Your task to perform on an android device: make emails show in primary in the gmail app Image 0: 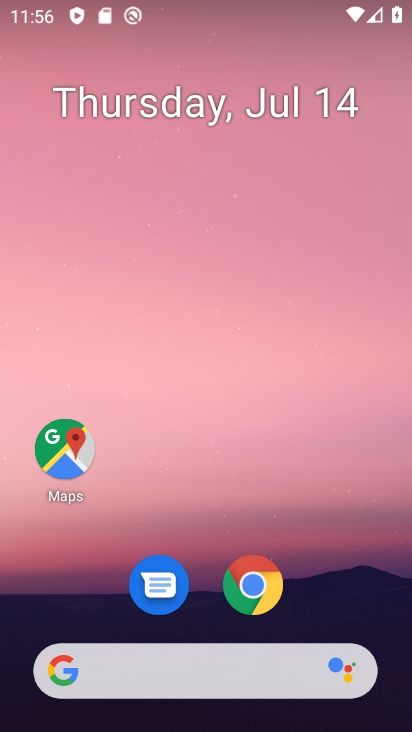
Step 0: drag from (345, 477) to (289, 16)
Your task to perform on an android device: make emails show in primary in the gmail app Image 1: 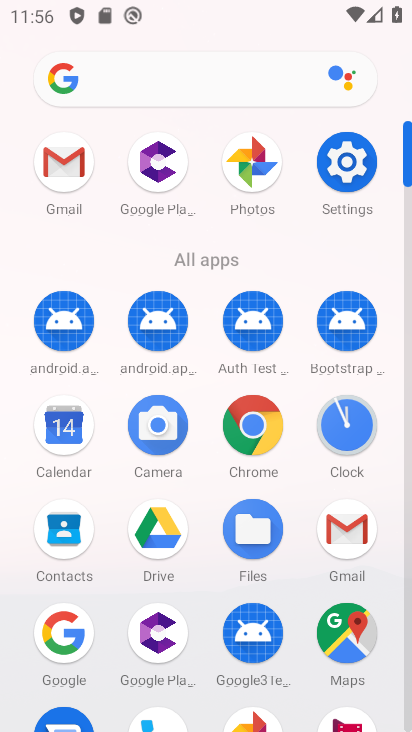
Step 1: click (83, 165)
Your task to perform on an android device: make emails show in primary in the gmail app Image 2: 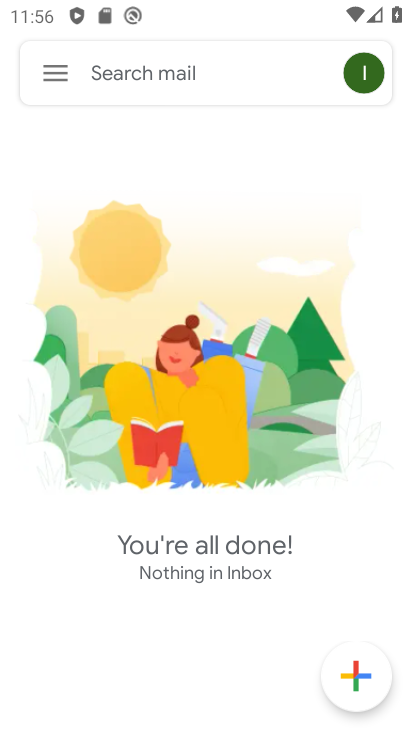
Step 2: click (61, 74)
Your task to perform on an android device: make emails show in primary in the gmail app Image 3: 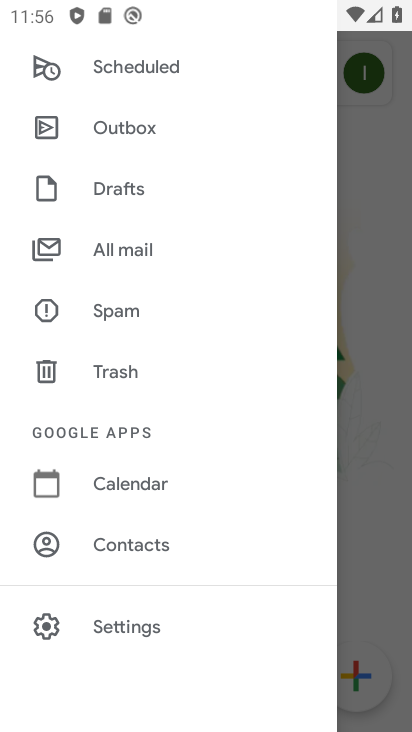
Step 3: click (125, 623)
Your task to perform on an android device: make emails show in primary in the gmail app Image 4: 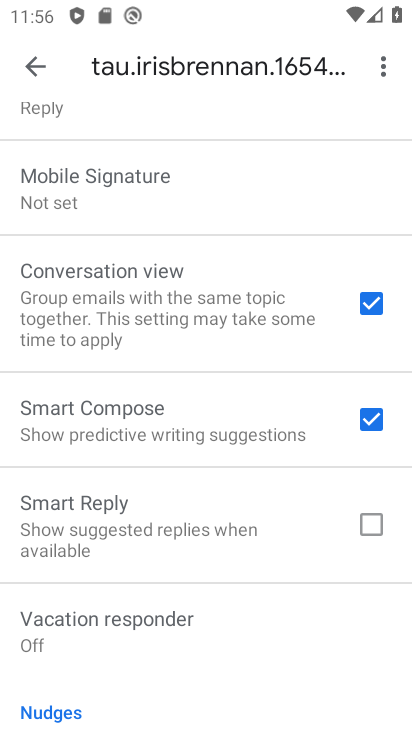
Step 4: drag from (151, 192) to (185, 647)
Your task to perform on an android device: make emails show in primary in the gmail app Image 5: 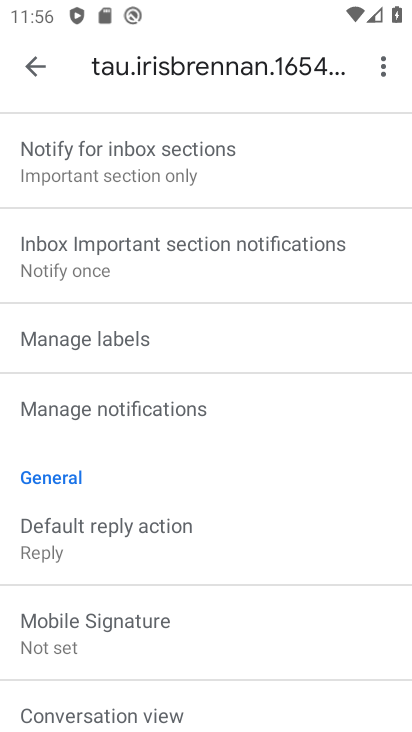
Step 5: drag from (157, 277) to (154, 618)
Your task to perform on an android device: make emails show in primary in the gmail app Image 6: 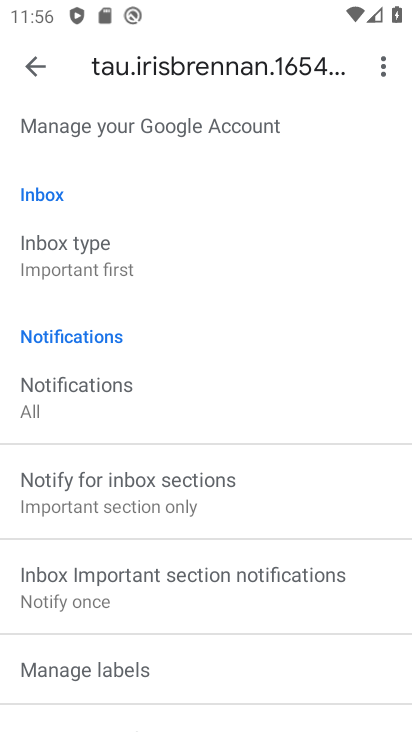
Step 6: click (95, 253)
Your task to perform on an android device: make emails show in primary in the gmail app Image 7: 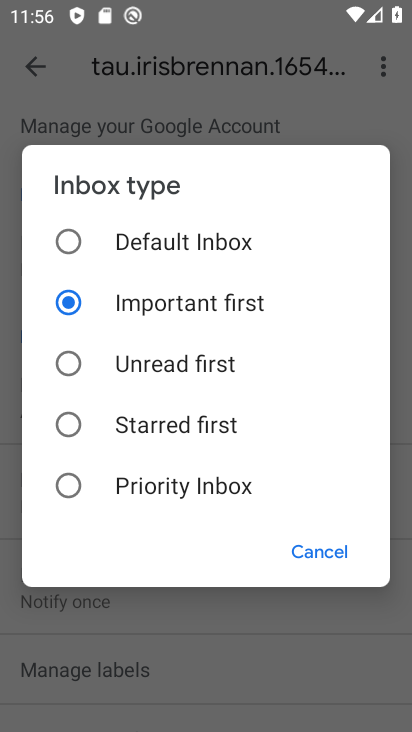
Step 7: click (74, 230)
Your task to perform on an android device: make emails show in primary in the gmail app Image 8: 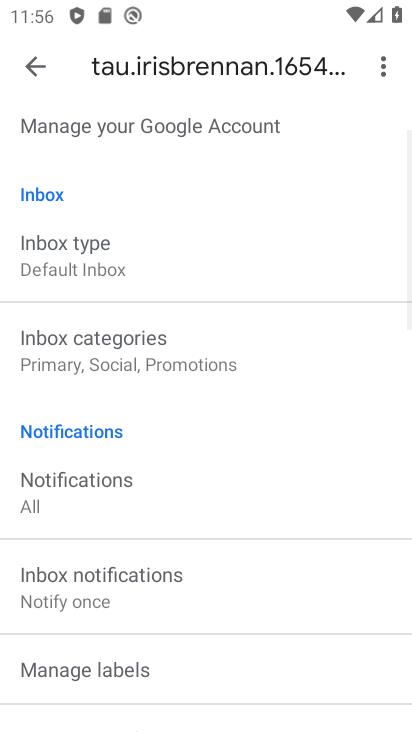
Step 8: click (126, 352)
Your task to perform on an android device: make emails show in primary in the gmail app Image 9: 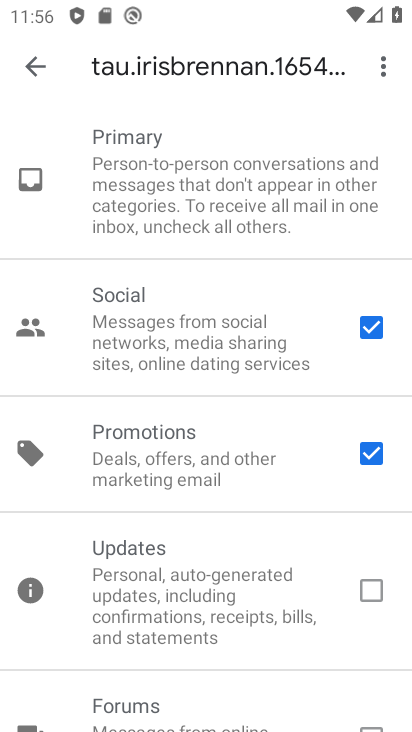
Step 9: click (370, 326)
Your task to perform on an android device: make emails show in primary in the gmail app Image 10: 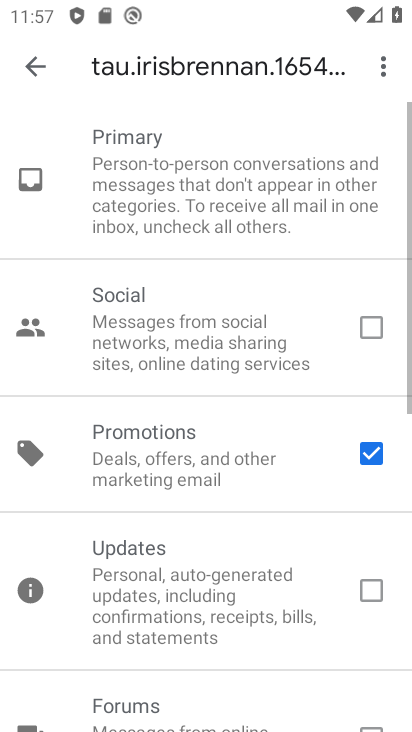
Step 10: click (376, 452)
Your task to perform on an android device: make emails show in primary in the gmail app Image 11: 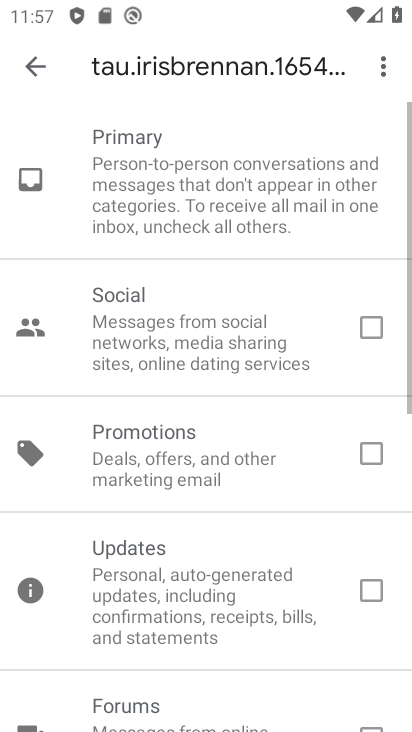
Step 11: click (30, 70)
Your task to perform on an android device: make emails show in primary in the gmail app Image 12: 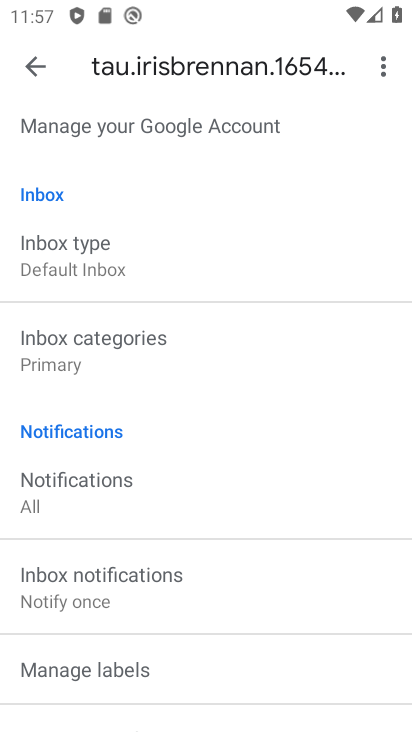
Step 12: task complete